Your task to perform on an android device: Go to ESPN.com Image 0: 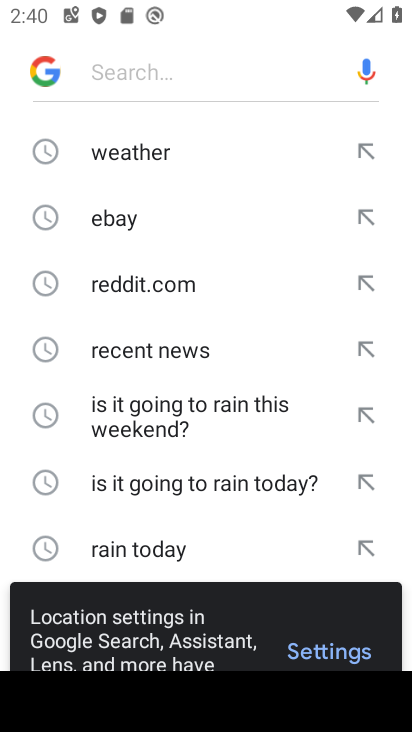
Step 0: press home button
Your task to perform on an android device: Go to ESPN.com Image 1: 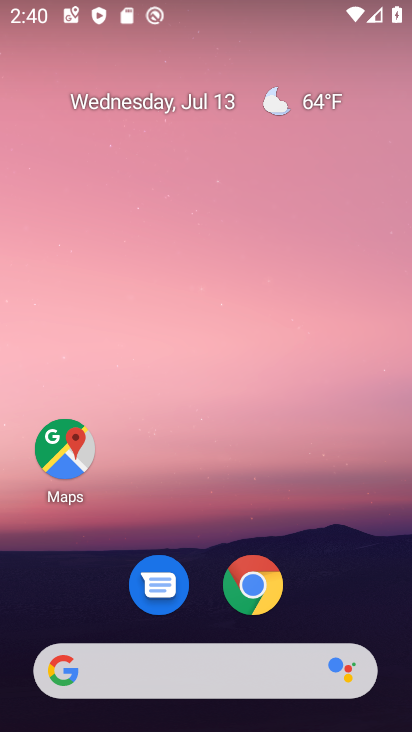
Step 1: click (248, 592)
Your task to perform on an android device: Go to ESPN.com Image 2: 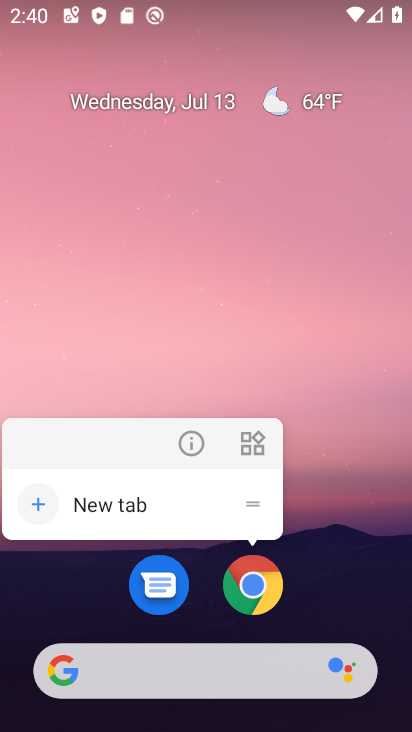
Step 2: click (255, 578)
Your task to perform on an android device: Go to ESPN.com Image 3: 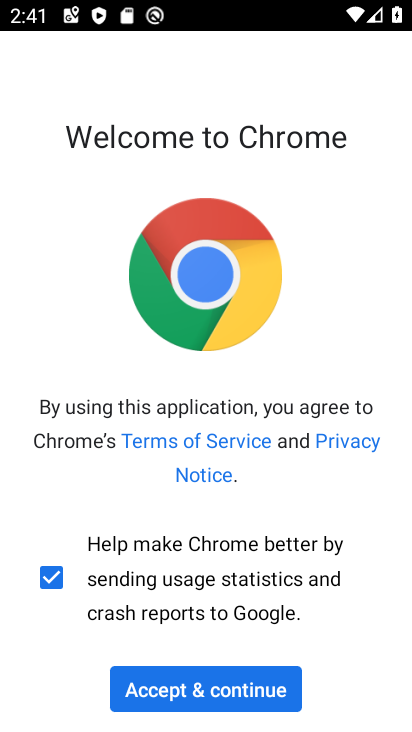
Step 3: click (214, 687)
Your task to perform on an android device: Go to ESPN.com Image 4: 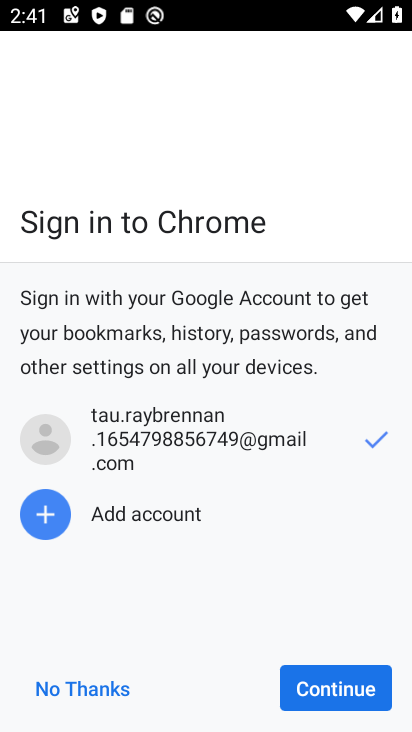
Step 4: click (325, 695)
Your task to perform on an android device: Go to ESPN.com Image 5: 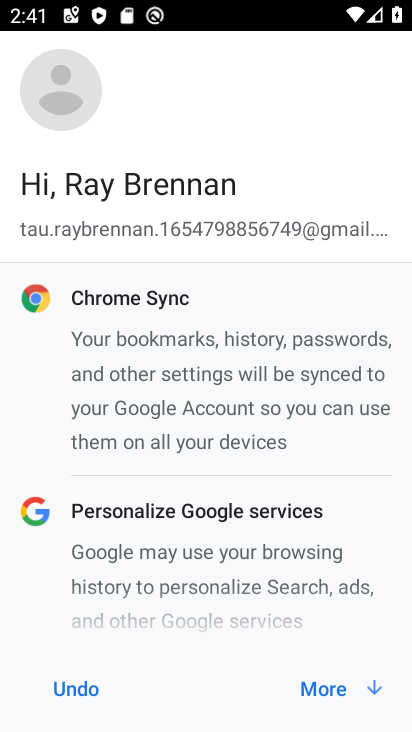
Step 5: click (306, 691)
Your task to perform on an android device: Go to ESPN.com Image 6: 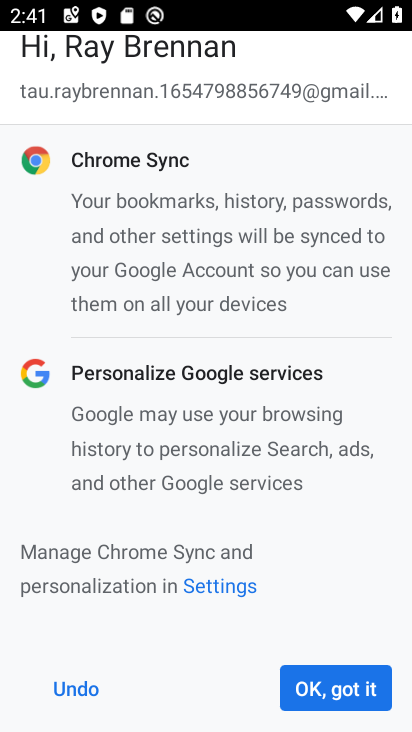
Step 6: click (315, 688)
Your task to perform on an android device: Go to ESPN.com Image 7: 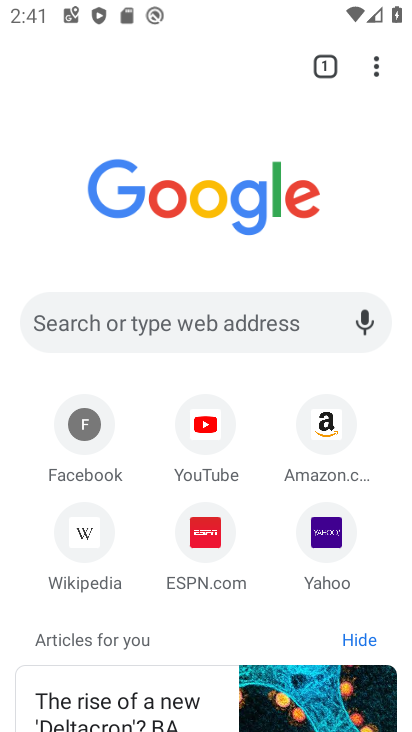
Step 7: click (209, 541)
Your task to perform on an android device: Go to ESPN.com Image 8: 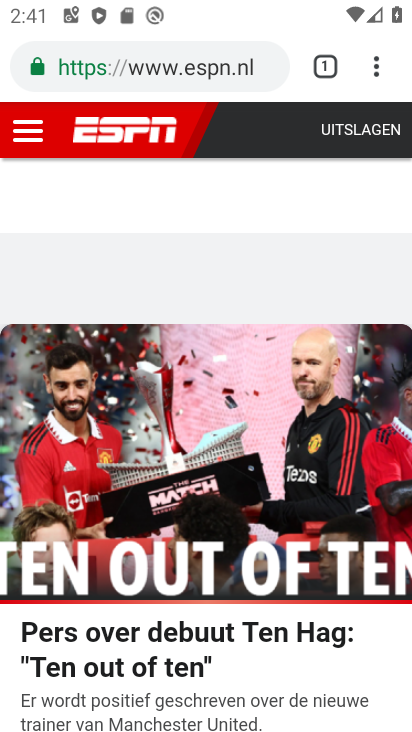
Step 8: task complete